Your task to perform on an android device: toggle notification dots Image 0: 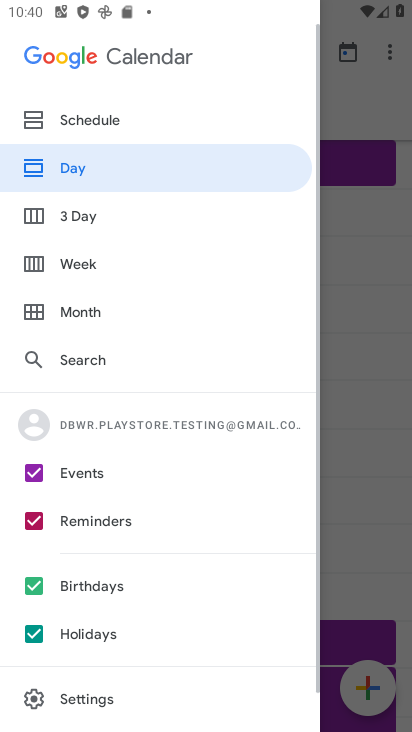
Step 0: press home button
Your task to perform on an android device: toggle notification dots Image 1: 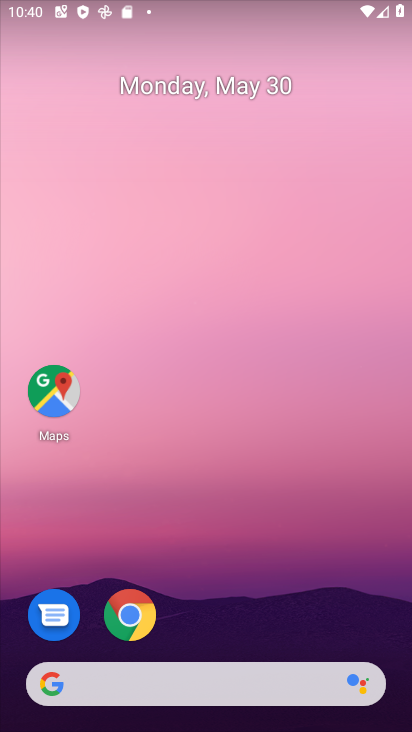
Step 1: click (165, 0)
Your task to perform on an android device: toggle notification dots Image 2: 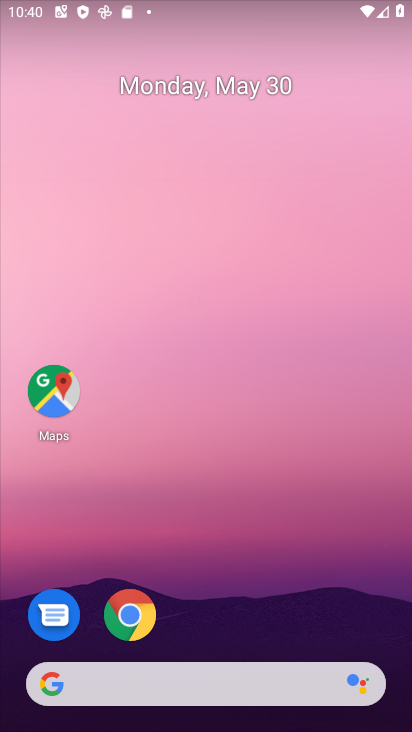
Step 2: drag from (269, 419) to (280, 36)
Your task to perform on an android device: toggle notification dots Image 3: 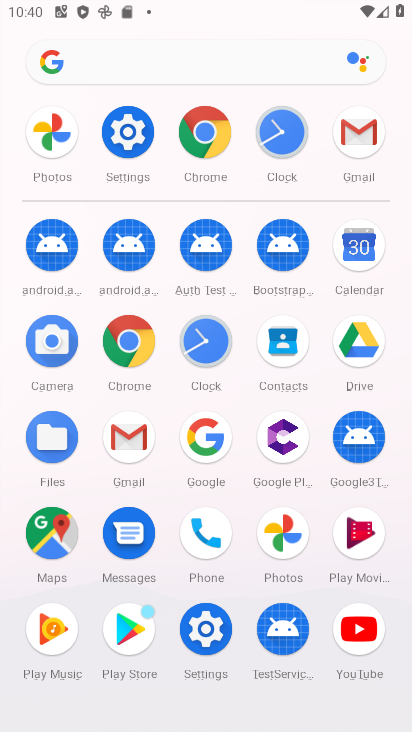
Step 3: click (128, 135)
Your task to perform on an android device: toggle notification dots Image 4: 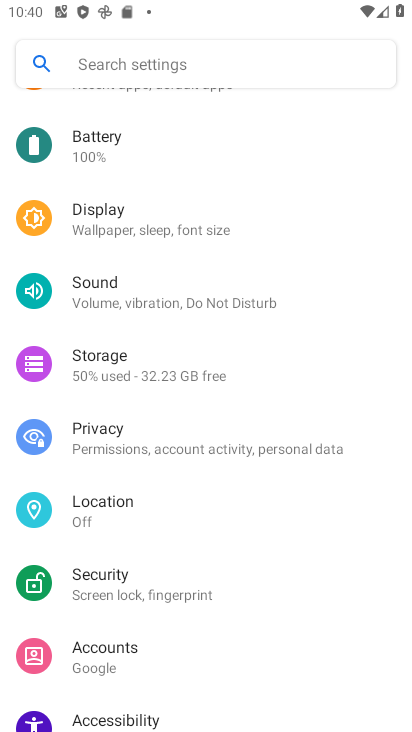
Step 4: drag from (235, 170) to (235, 627)
Your task to perform on an android device: toggle notification dots Image 5: 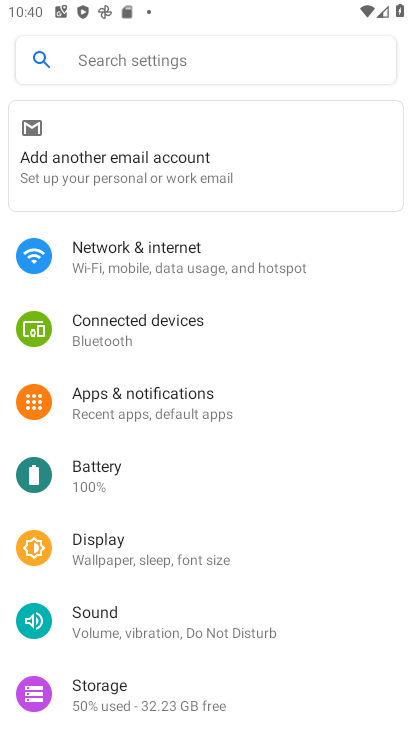
Step 5: click (178, 395)
Your task to perform on an android device: toggle notification dots Image 6: 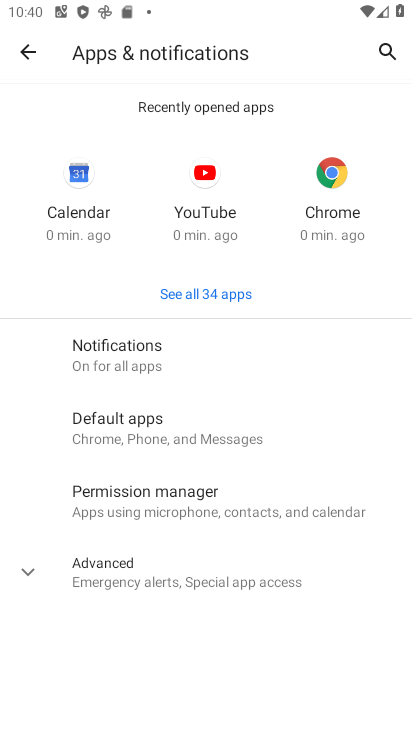
Step 6: click (134, 349)
Your task to perform on an android device: toggle notification dots Image 7: 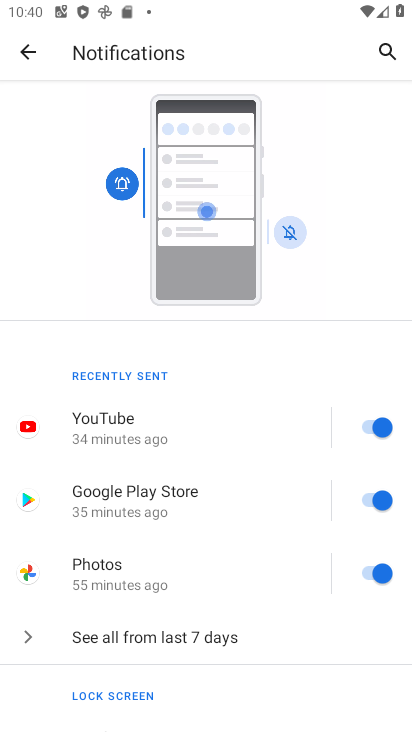
Step 7: drag from (238, 434) to (238, 200)
Your task to perform on an android device: toggle notification dots Image 8: 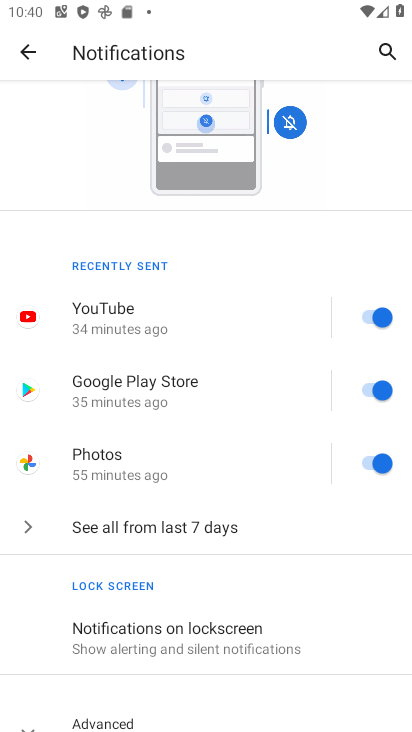
Step 8: click (204, 718)
Your task to perform on an android device: toggle notification dots Image 9: 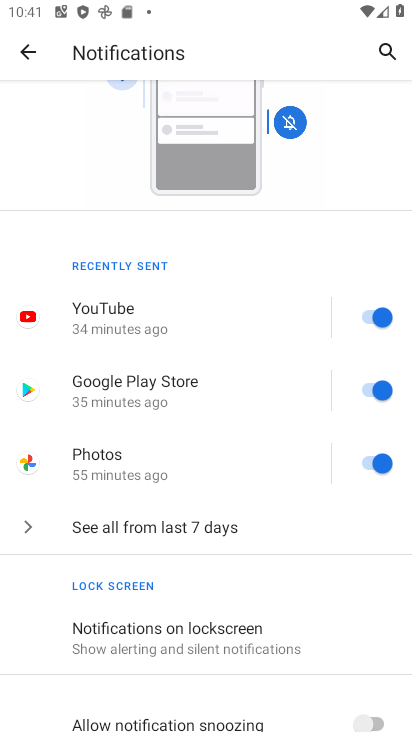
Step 9: drag from (279, 508) to (237, 167)
Your task to perform on an android device: toggle notification dots Image 10: 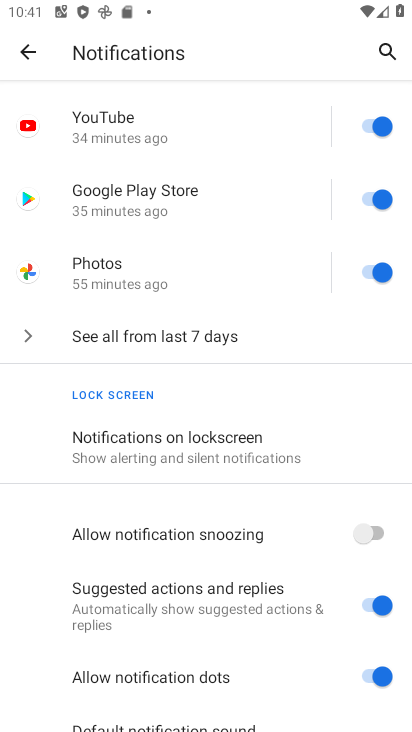
Step 10: click (374, 683)
Your task to perform on an android device: toggle notification dots Image 11: 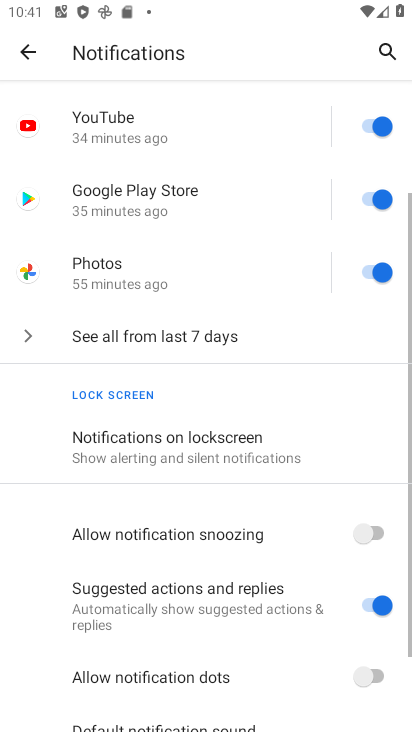
Step 11: task complete